Your task to perform on an android device: refresh tabs in the chrome app Image 0: 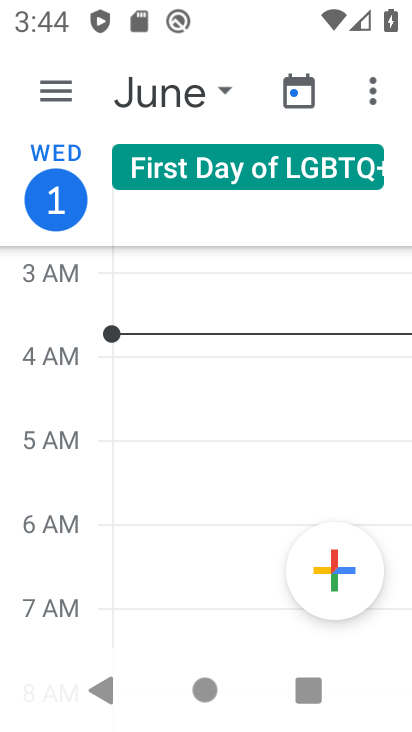
Step 0: press home button
Your task to perform on an android device: refresh tabs in the chrome app Image 1: 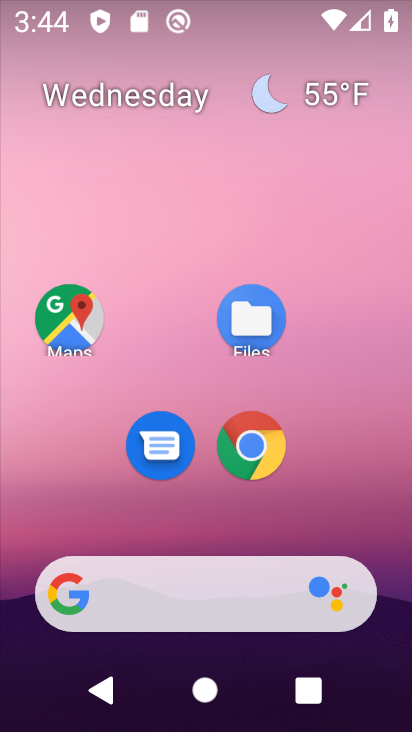
Step 1: click (260, 462)
Your task to perform on an android device: refresh tabs in the chrome app Image 2: 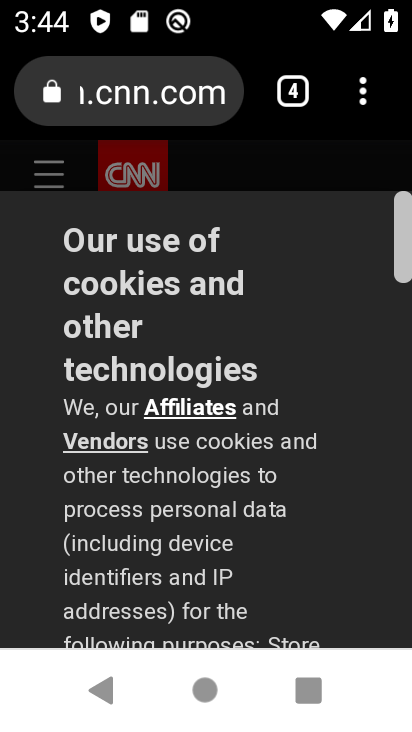
Step 2: click (366, 100)
Your task to perform on an android device: refresh tabs in the chrome app Image 3: 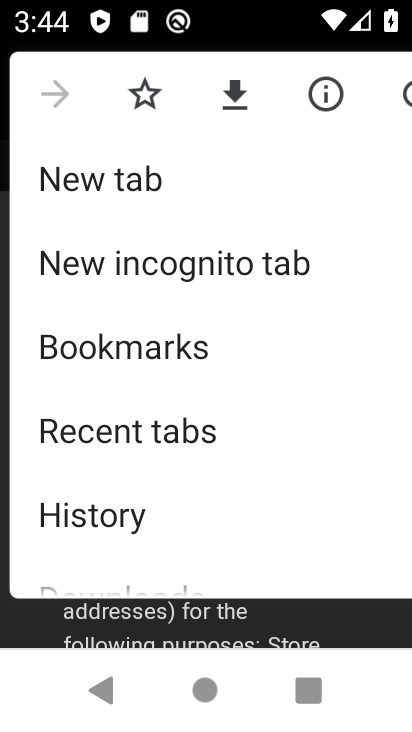
Step 3: drag from (168, 495) to (246, 147)
Your task to perform on an android device: refresh tabs in the chrome app Image 4: 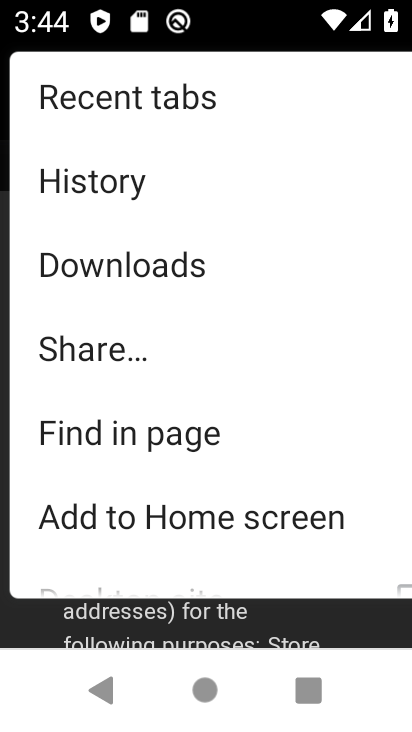
Step 4: drag from (246, 147) to (195, 594)
Your task to perform on an android device: refresh tabs in the chrome app Image 5: 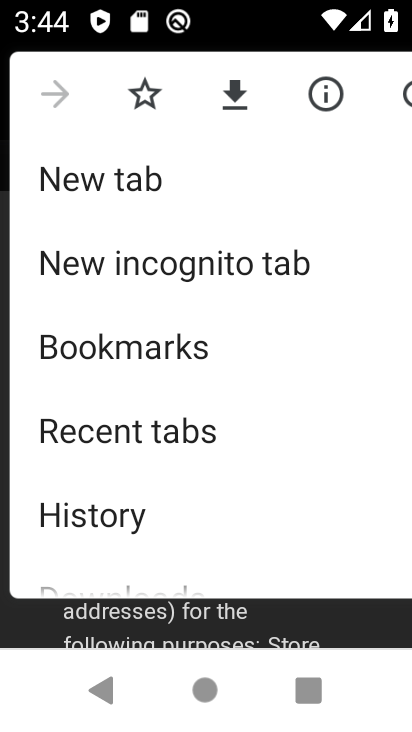
Step 5: click (403, 98)
Your task to perform on an android device: refresh tabs in the chrome app Image 6: 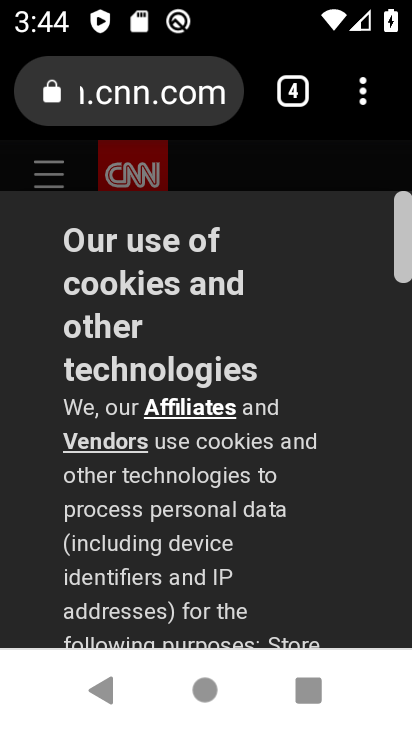
Step 6: task complete